Your task to perform on an android device: see creations saved in the google photos Image 0: 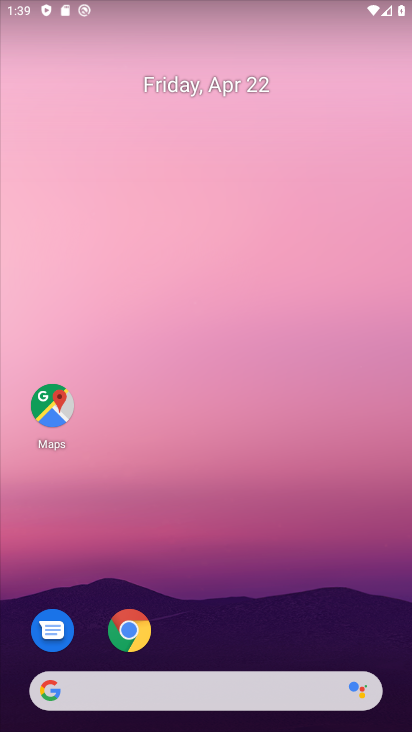
Step 0: drag from (318, 284) to (315, 5)
Your task to perform on an android device: see creations saved in the google photos Image 1: 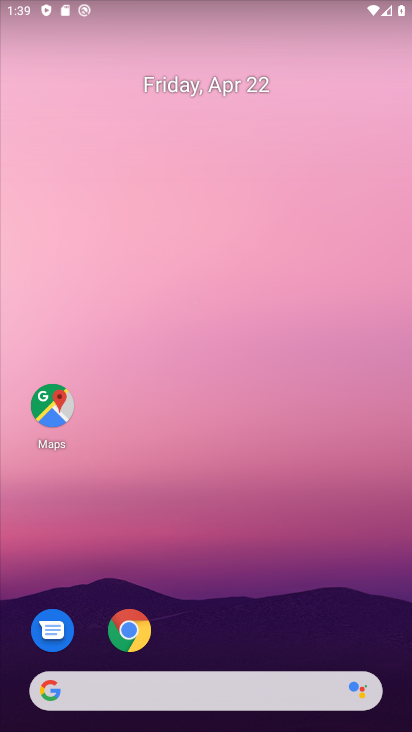
Step 1: drag from (381, 545) to (357, 205)
Your task to perform on an android device: see creations saved in the google photos Image 2: 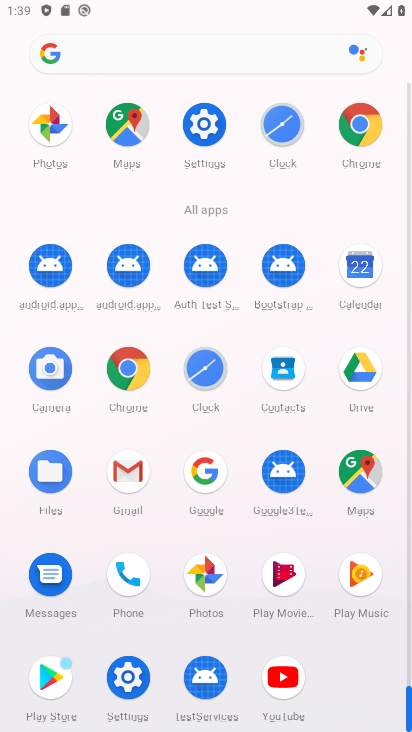
Step 2: click (191, 580)
Your task to perform on an android device: see creations saved in the google photos Image 3: 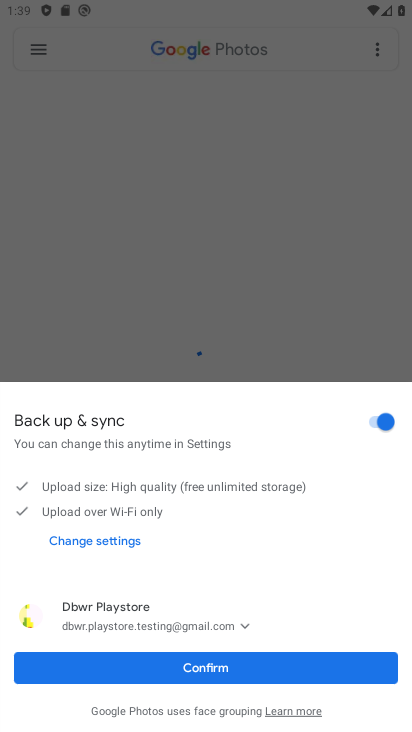
Step 3: click (272, 666)
Your task to perform on an android device: see creations saved in the google photos Image 4: 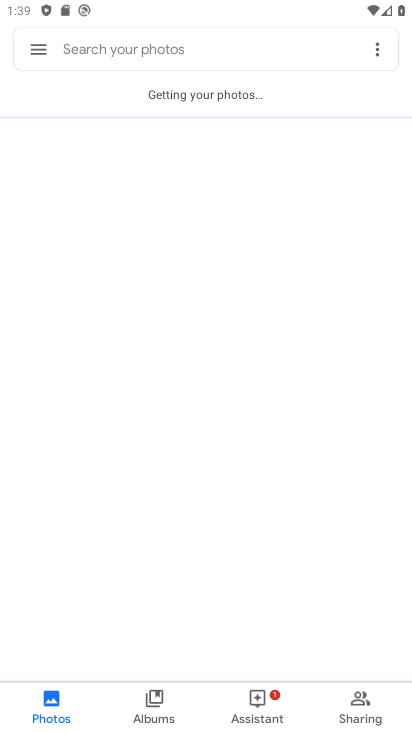
Step 4: click (64, 697)
Your task to perform on an android device: see creations saved in the google photos Image 5: 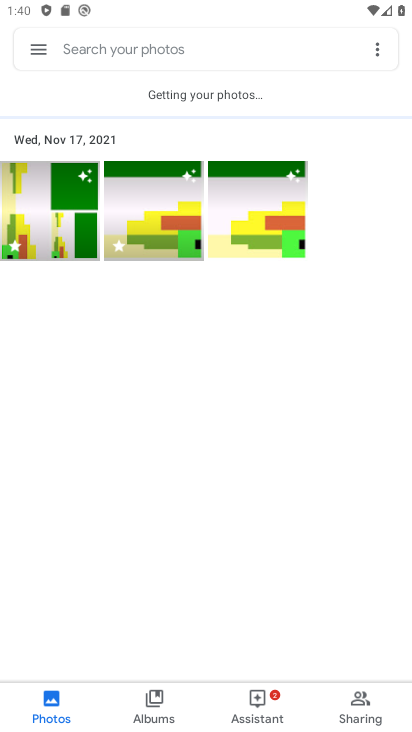
Step 5: click (73, 211)
Your task to perform on an android device: see creations saved in the google photos Image 6: 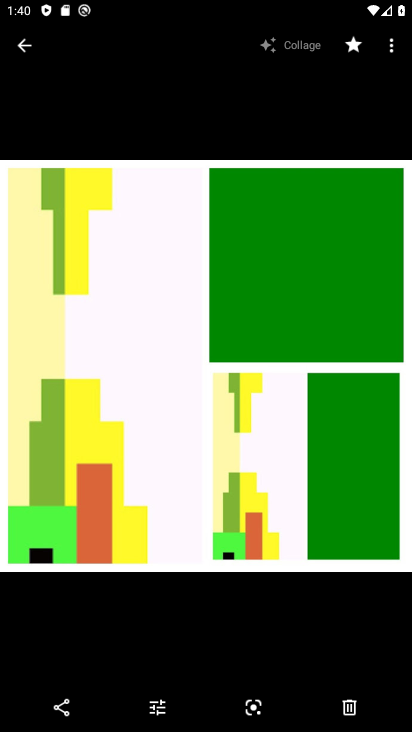
Step 6: click (15, 42)
Your task to perform on an android device: see creations saved in the google photos Image 7: 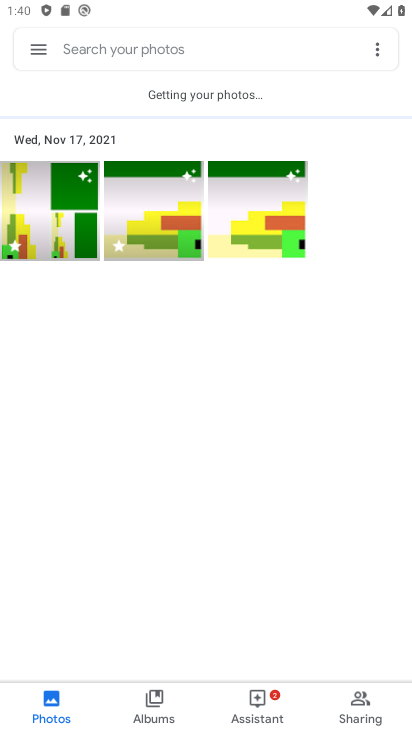
Step 7: click (144, 227)
Your task to perform on an android device: see creations saved in the google photos Image 8: 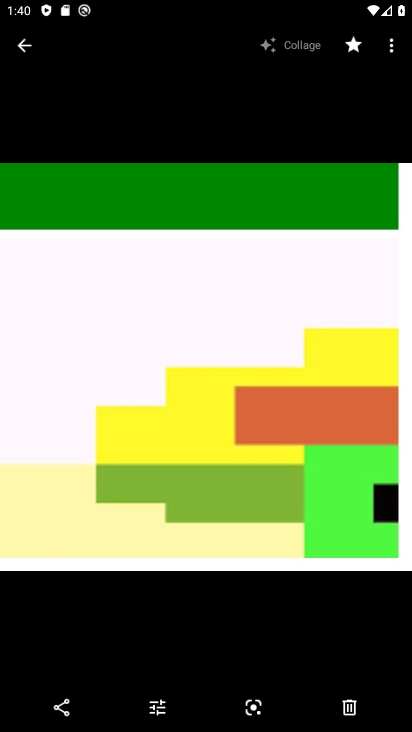
Step 8: click (11, 44)
Your task to perform on an android device: see creations saved in the google photos Image 9: 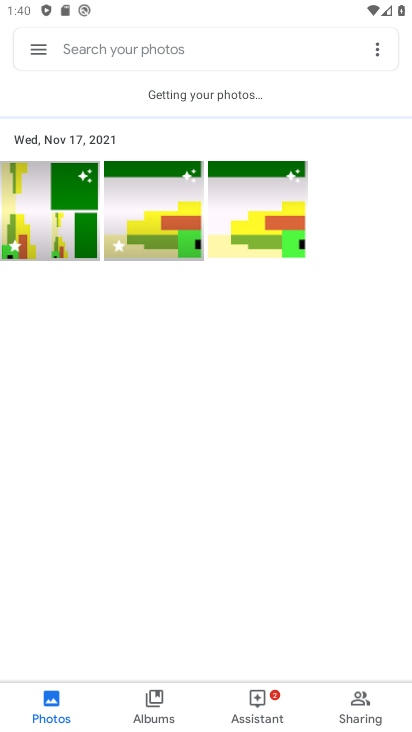
Step 9: click (242, 188)
Your task to perform on an android device: see creations saved in the google photos Image 10: 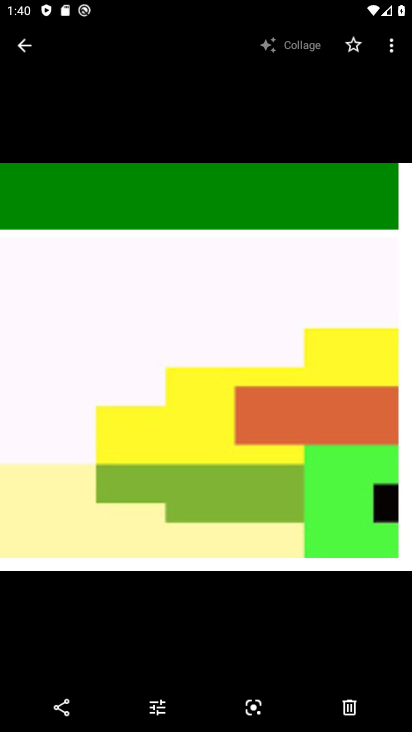
Step 10: click (23, 46)
Your task to perform on an android device: see creations saved in the google photos Image 11: 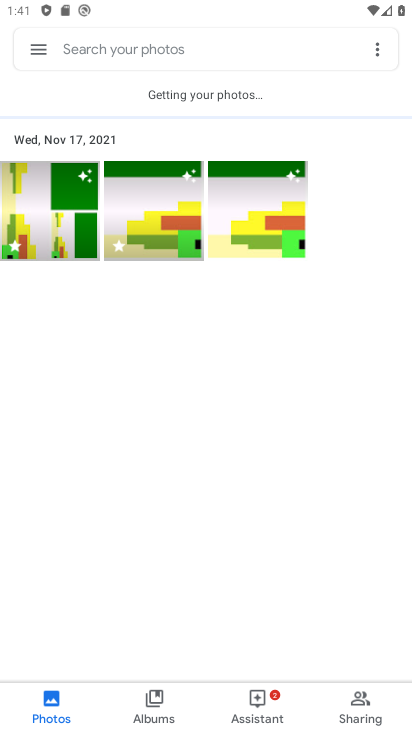
Step 11: task complete